Your task to perform on an android device: Open the phone app and click the voicemail tab. Image 0: 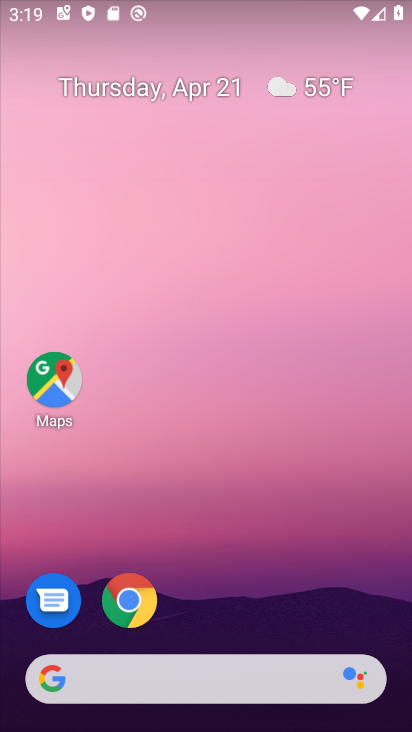
Step 0: drag from (167, 669) to (321, 154)
Your task to perform on an android device: Open the phone app and click the voicemail tab. Image 1: 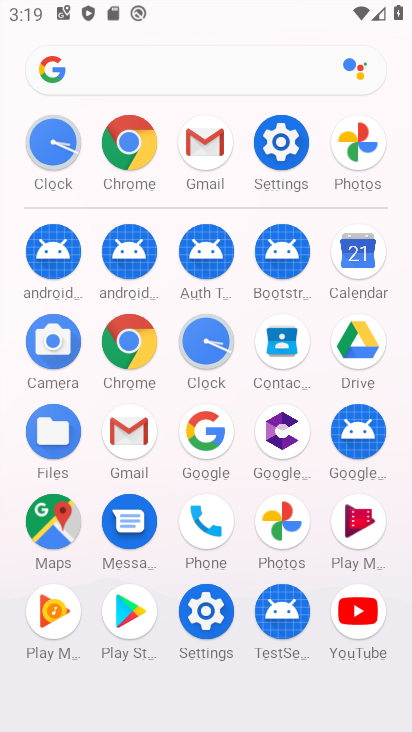
Step 1: click (205, 520)
Your task to perform on an android device: Open the phone app and click the voicemail tab. Image 2: 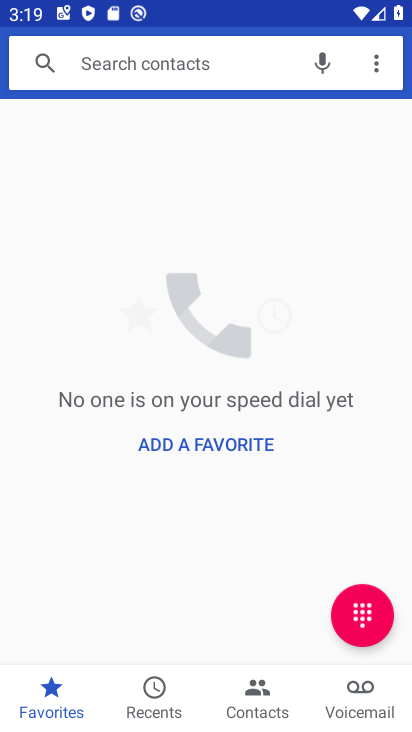
Step 2: click (358, 685)
Your task to perform on an android device: Open the phone app and click the voicemail tab. Image 3: 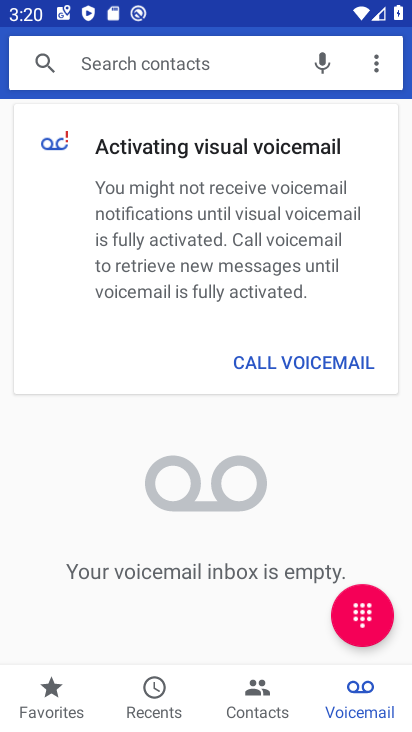
Step 3: task complete